Your task to perform on an android device: Go to calendar. Show me events next week Image 0: 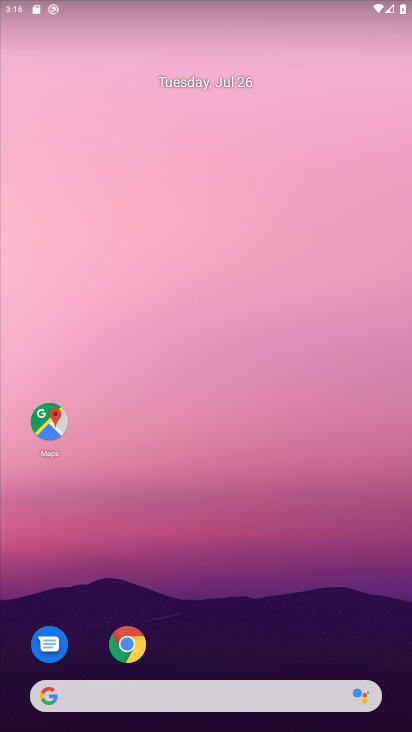
Step 0: drag from (244, 636) to (196, 215)
Your task to perform on an android device: Go to calendar. Show me events next week Image 1: 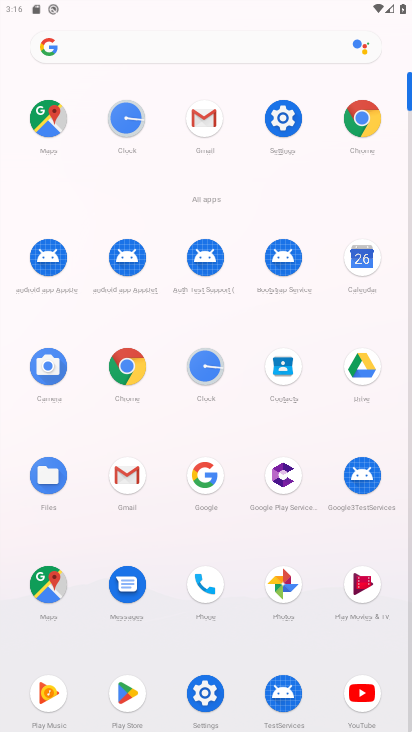
Step 1: click (350, 247)
Your task to perform on an android device: Go to calendar. Show me events next week Image 2: 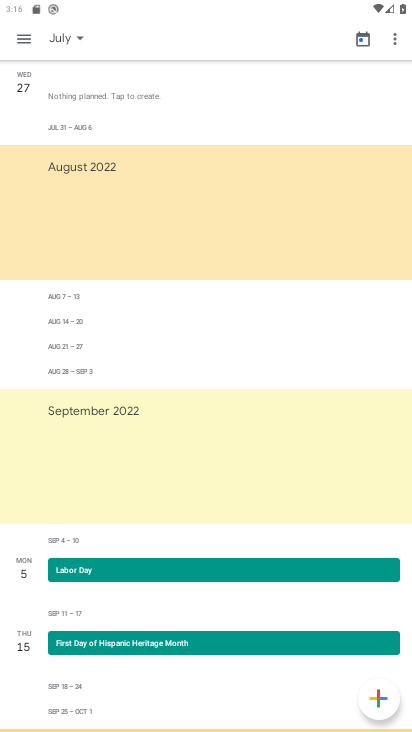
Step 2: click (33, 37)
Your task to perform on an android device: Go to calendar. Show me events next week Image 3: 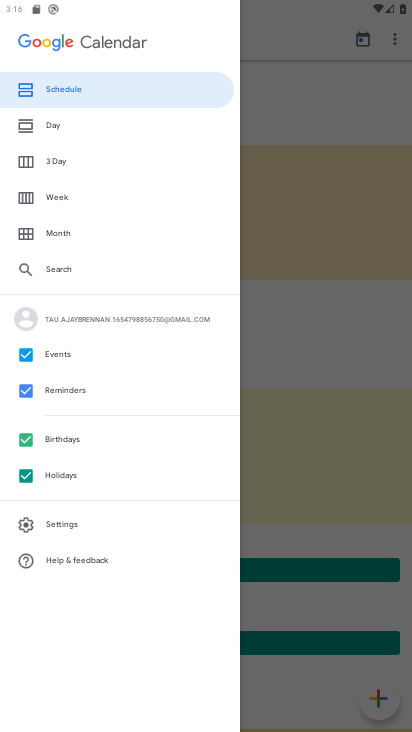
Step 3: click (49, 178)
Your task to perform on an android device: Go to calendar. Show me events next week Image 4: 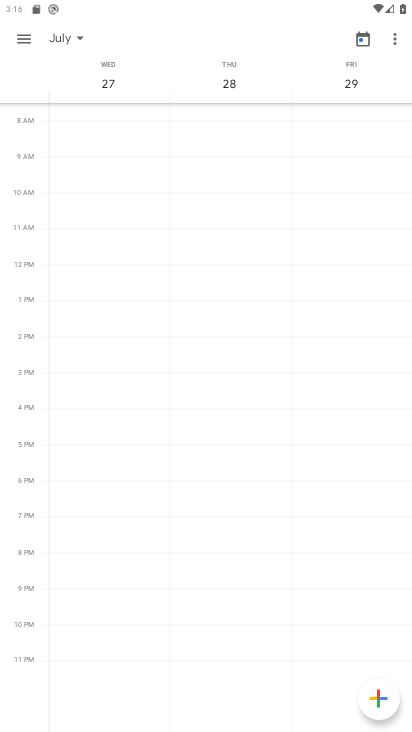
Step 4: click (22, 44)
Your task to perform on an android device: Go to calendar. Show me events next week Image 5: 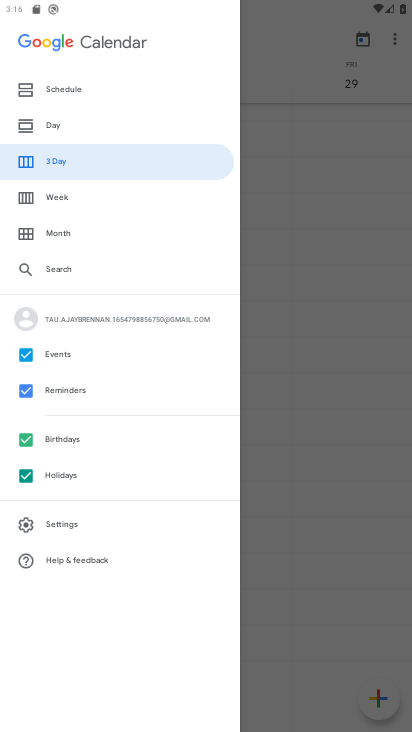
Step 5: click (34, 185)
Your task to perform on an android device: Go to calendar. Show me events next week Image 6: 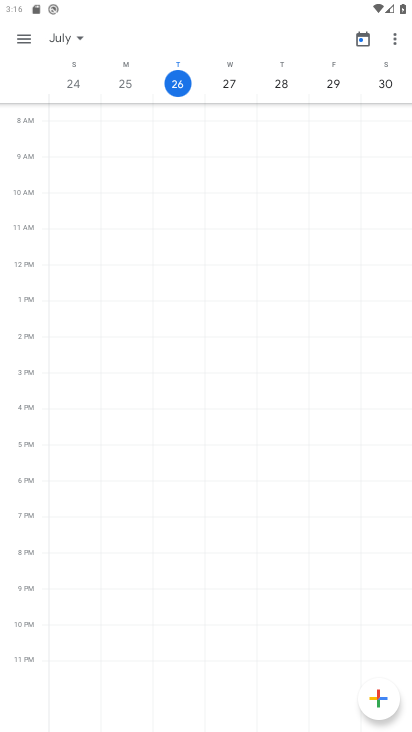
Step 6: task complete